Your task to perform on an android device: turn on translation in the chrome app Image 0: 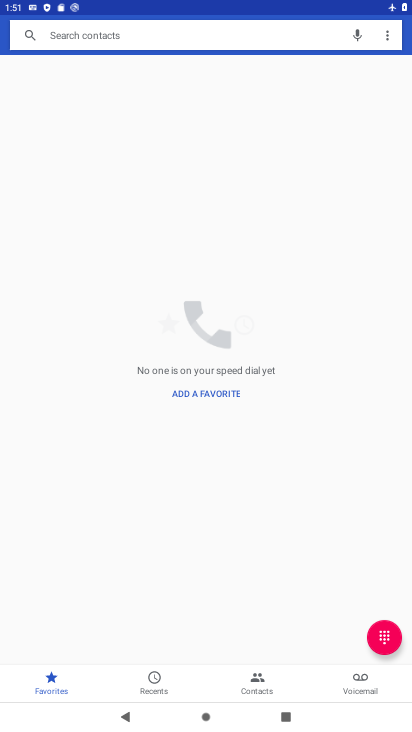
Step 0: press home button
Your task to perform on an android device: turn on translation in the chrome app Image 1: 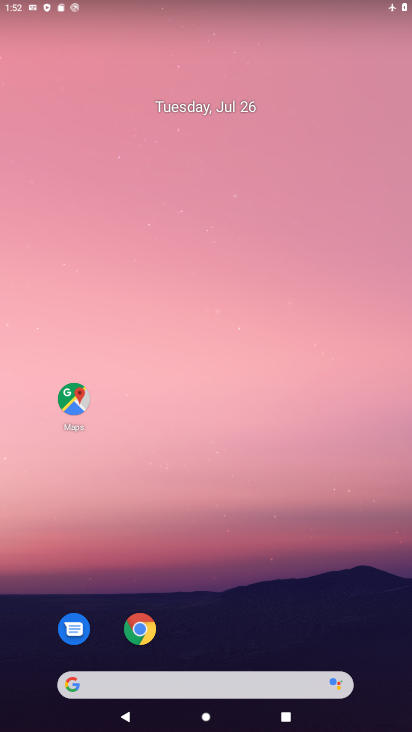
Step 1: click (137, 637)
Your task to perform on an android device: turn on translation in the chrome app Image 2: 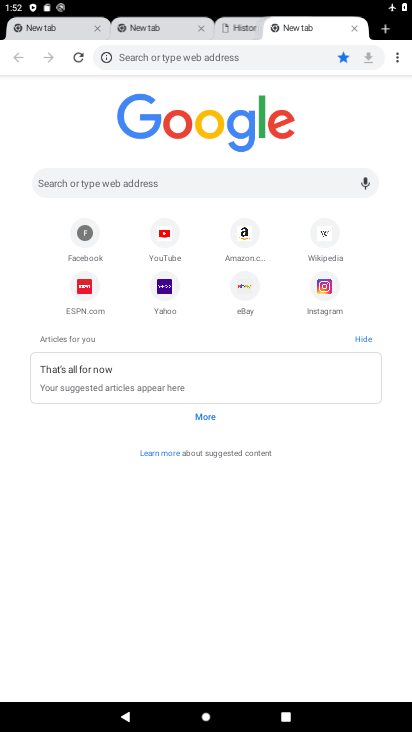
Step 2: click (395, 57)
Your task to perform on an android device: turn on translation in the chrome app Image 3: 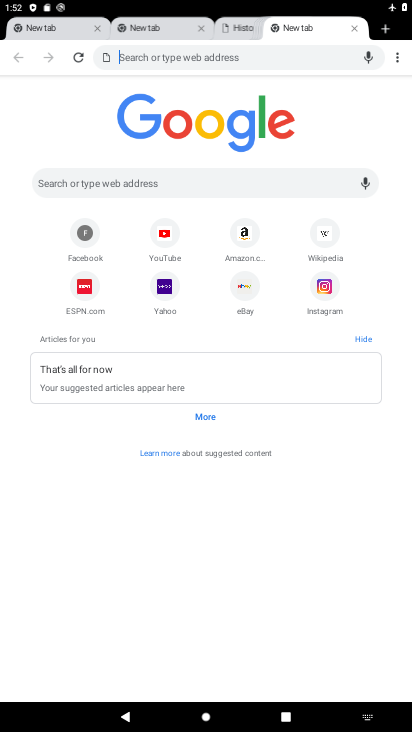
Step 3: click (395, 57)
Your task to perform on an android device: turn on translation in the chrome app Image 4: 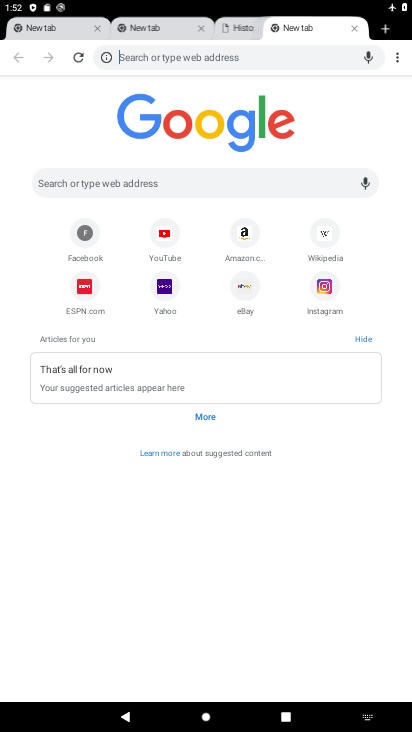
Step 4: click (397, 55)
Your task to perform on an android device: turn on translation in the chrome app Image 5: 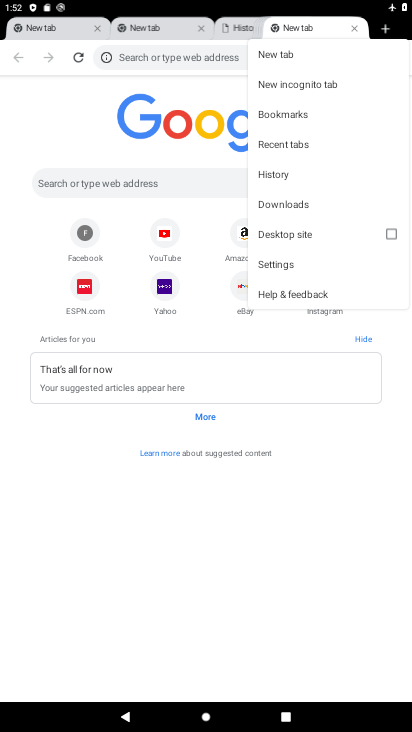
Step 5: click (270, 257)
Your task to perform on an android device: turn on translation in the chrome app Image 6: 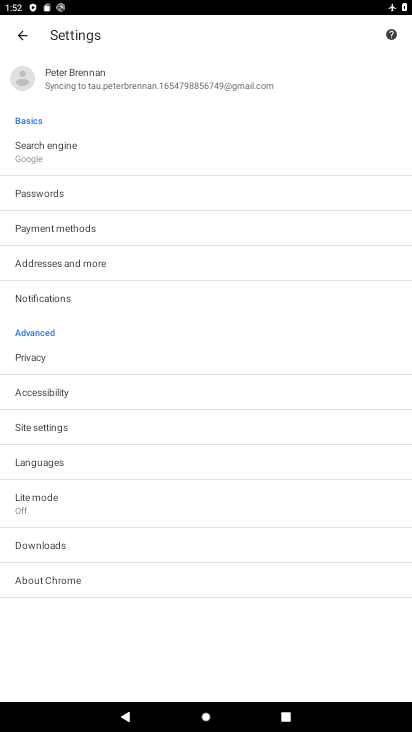
Step 6: click (44, 461)
Your task to perform on an android device: turn on translation in the chrome app Image 7: 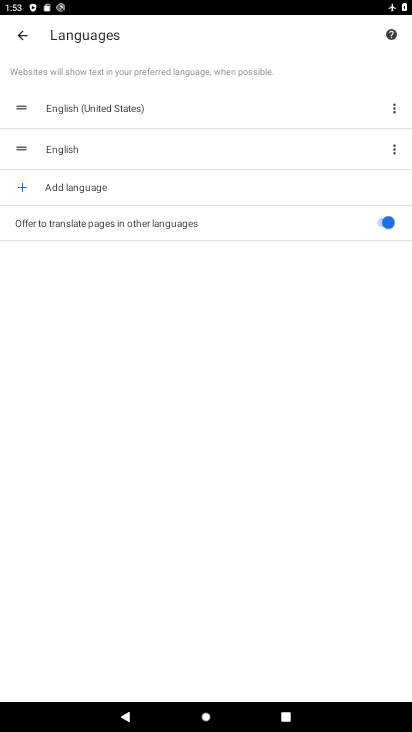
Step 7: task complete